Your task to perform on an android device: Go to Reddit.com Image 0: 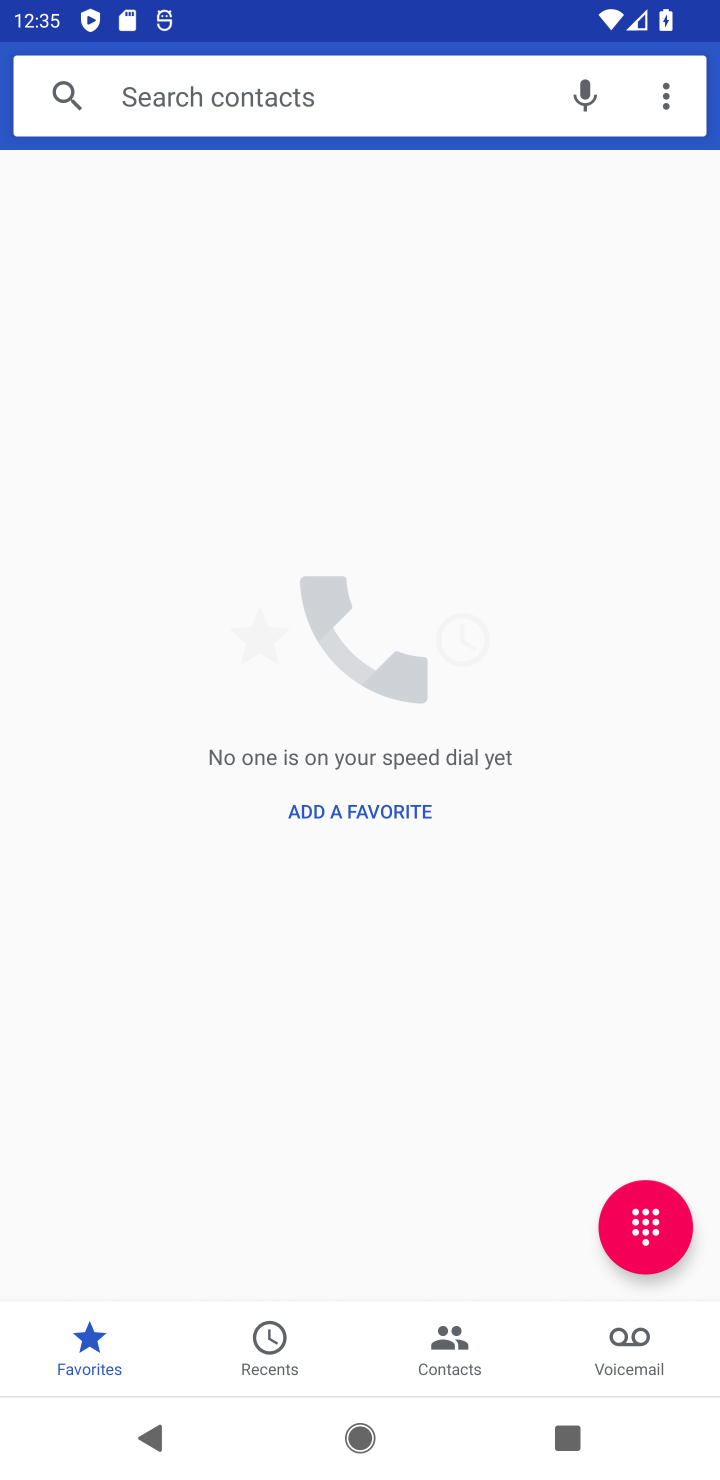
Step 0: press home button
Your task to perform on an android device: Go to Reddit.com Image 1: 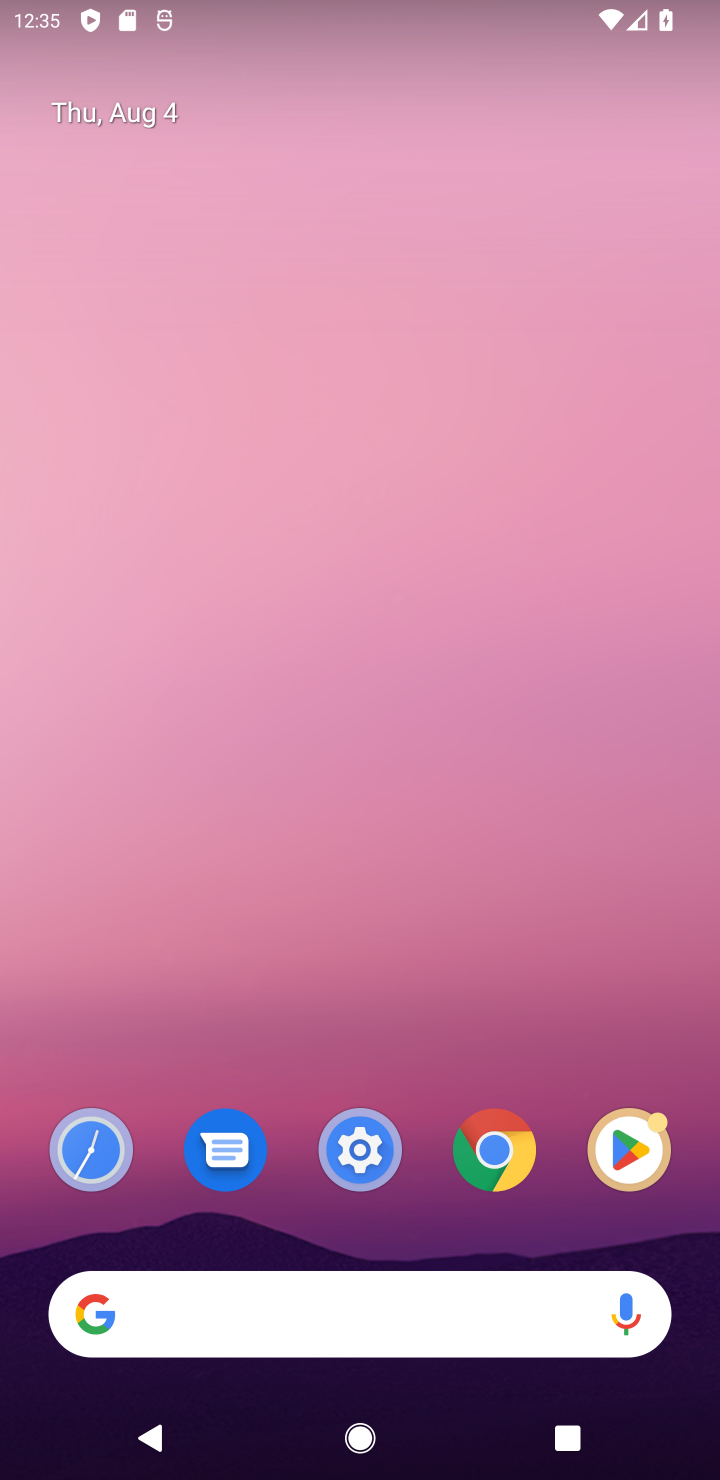
Step 1: click (502, 1150)
Your task to perform on an android device: Go to Reddit.com Image 2: 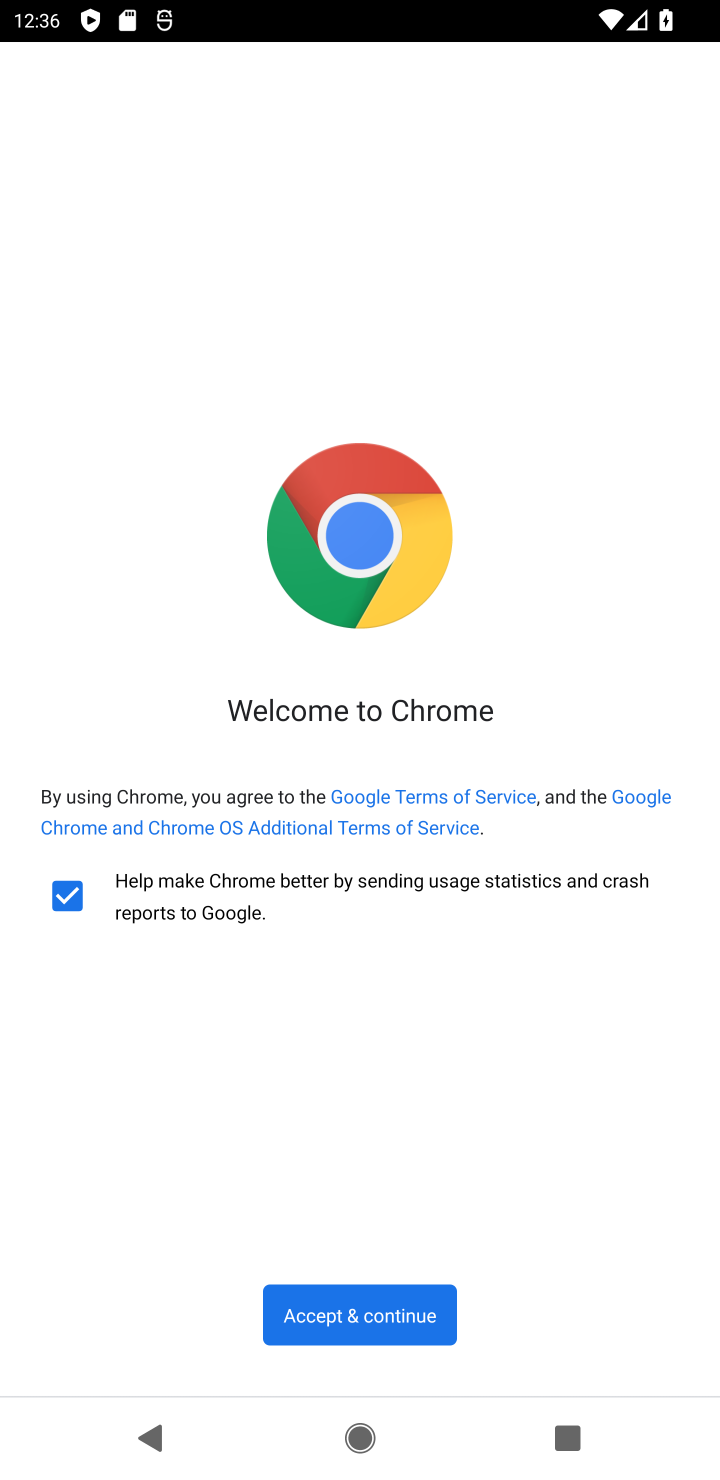
Step 2: click (398, 1277)
Your task to perform on an android device: Go to Reddit.com Image 3: 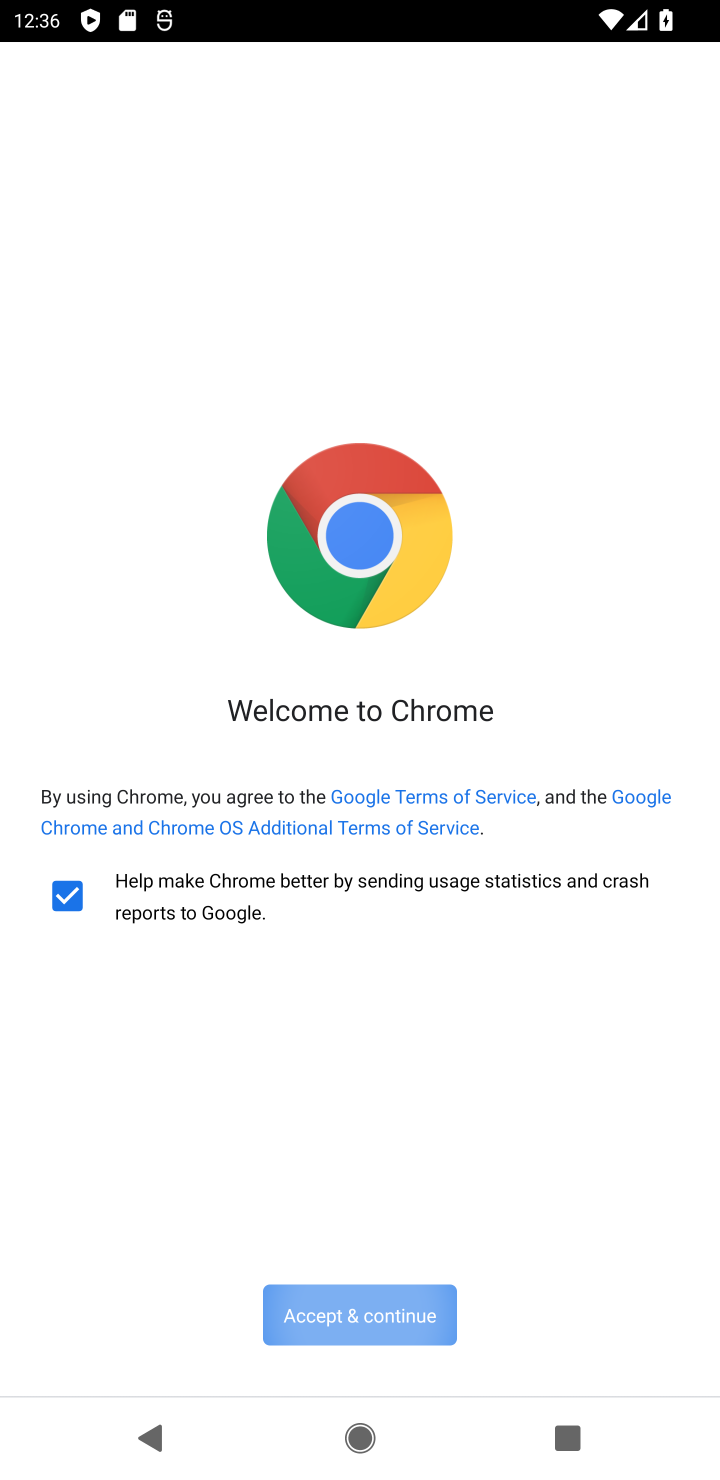
Step 3: click (398, 1297)
Your task to perform on an android device: Go to Reddit.com Image 4: 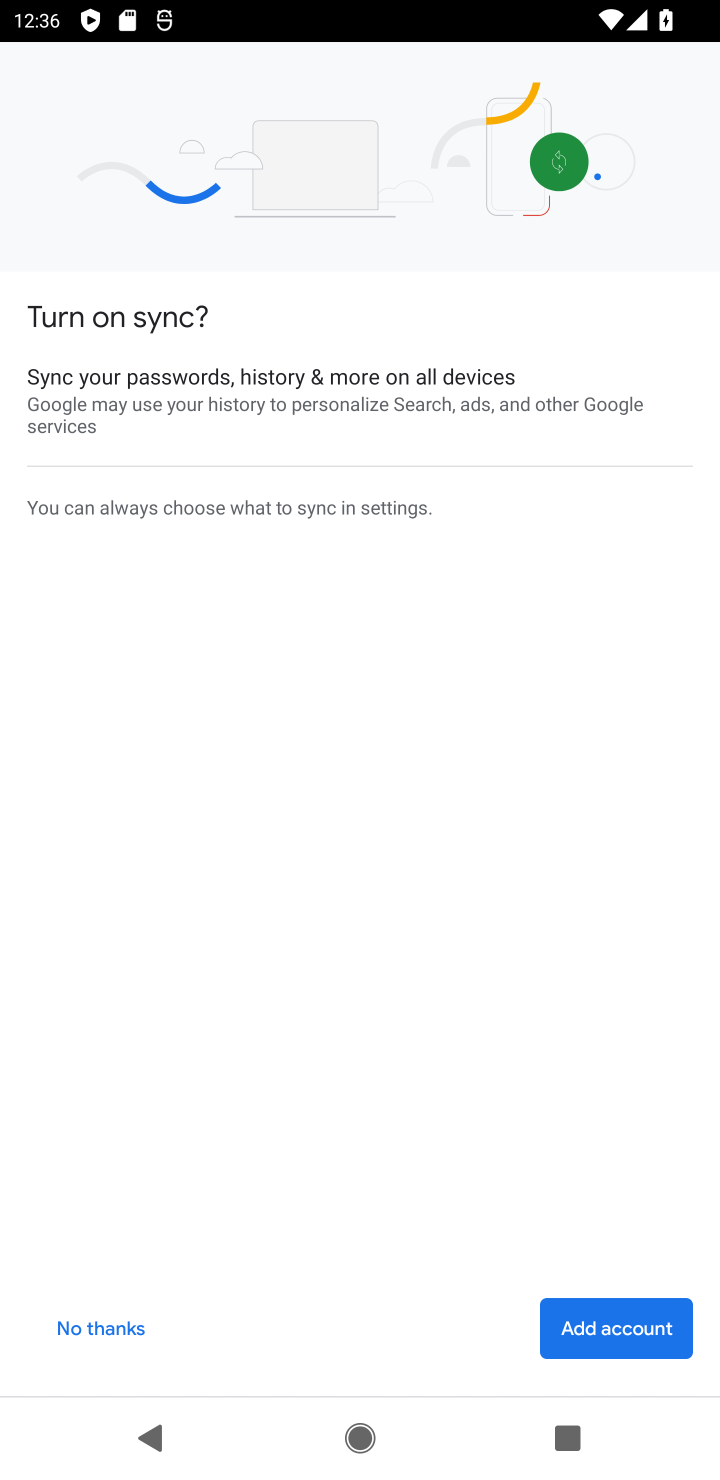
Step 4: click (119, 1318)
Your task to perform on an android device: Go to Reddit.com Image 5: 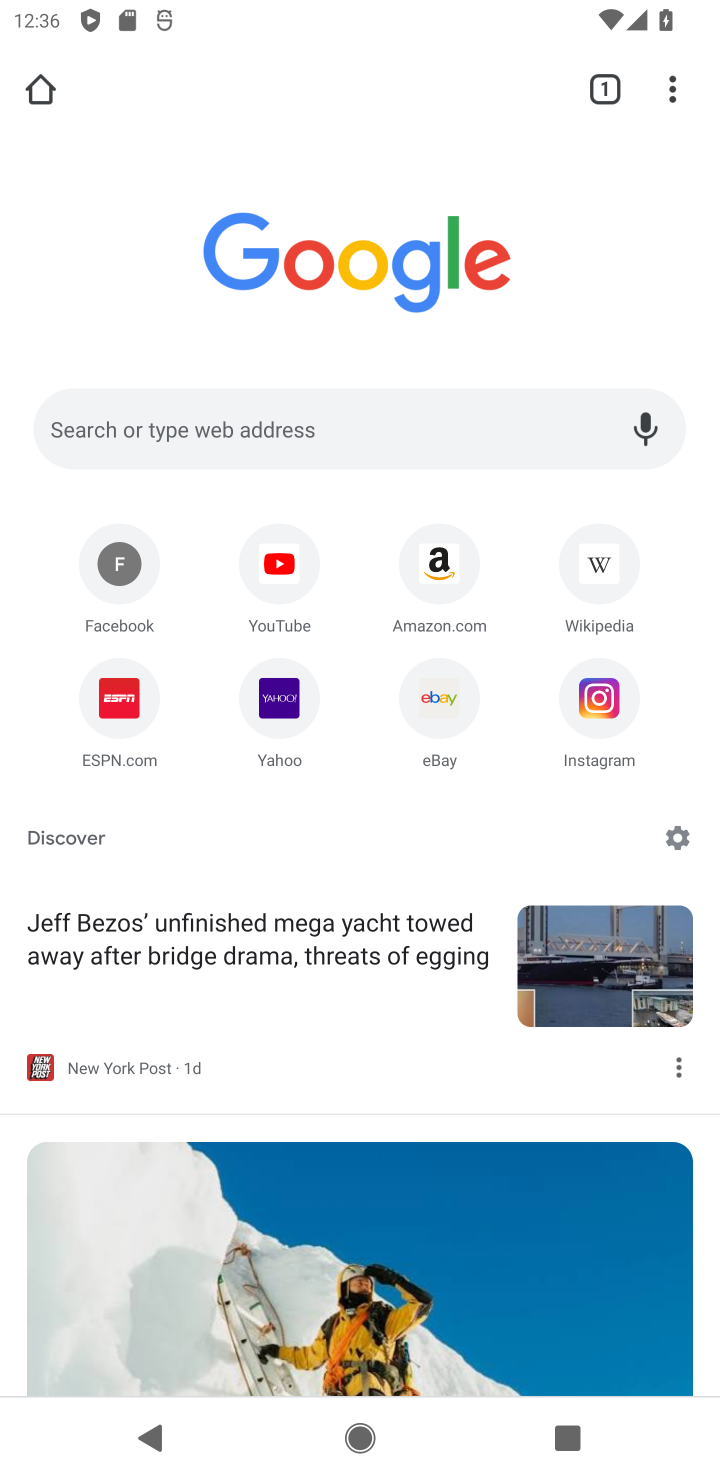
Step 5: click (389, 414)
Your task to perform on an android device: Go to Reddit.com Image 6: 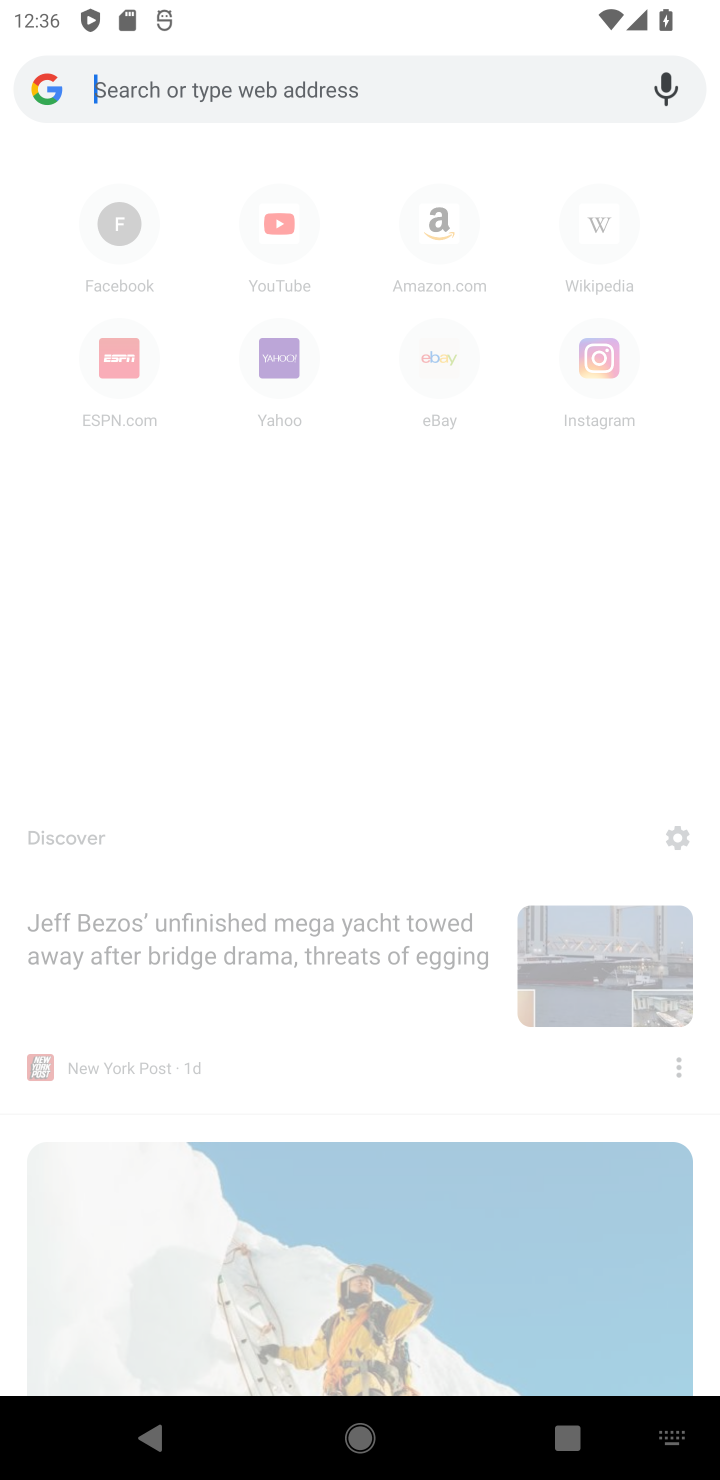
Step 6: type "Reddit.com"
Your task to perform on an android device: Go to Reddit.com Image 7: 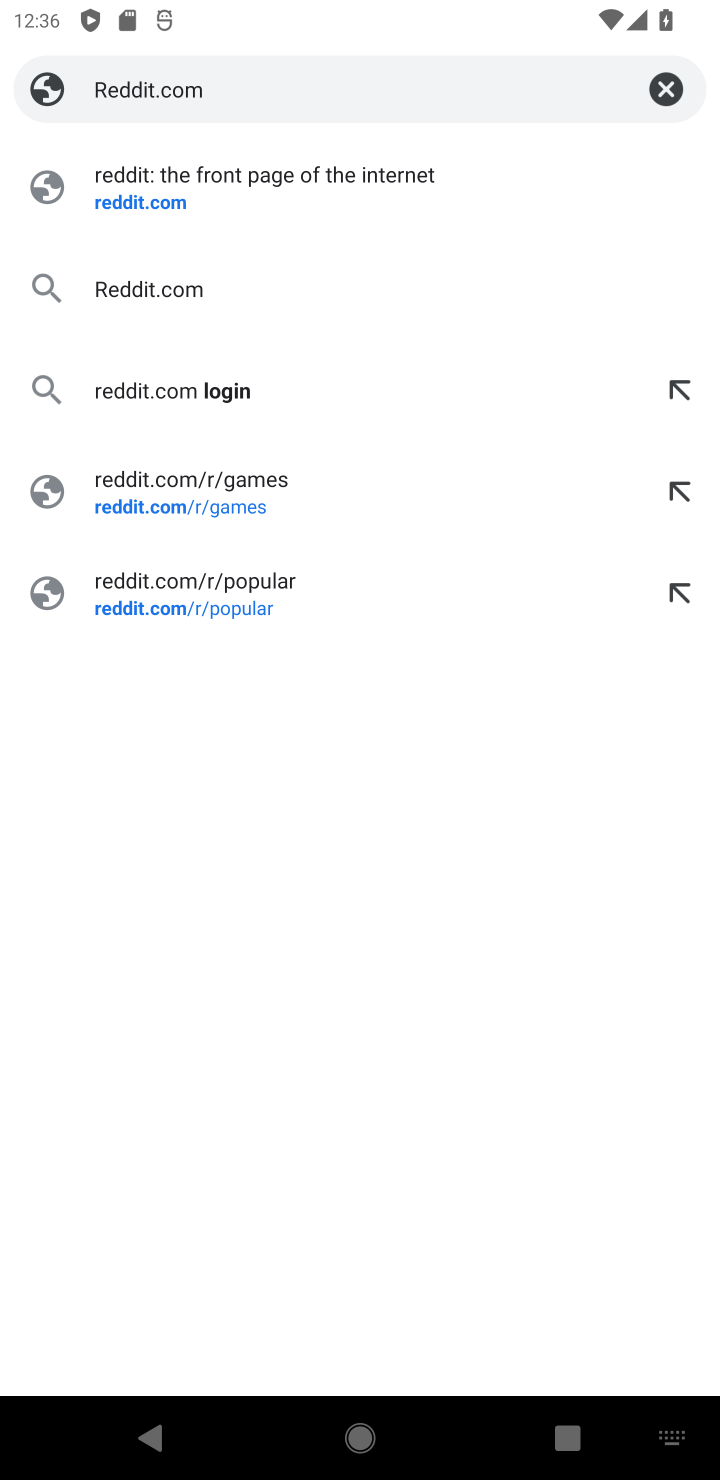
Step 7: click (215, 272)
Your task to perform on an android device: Go to Reddit.com Image 8: 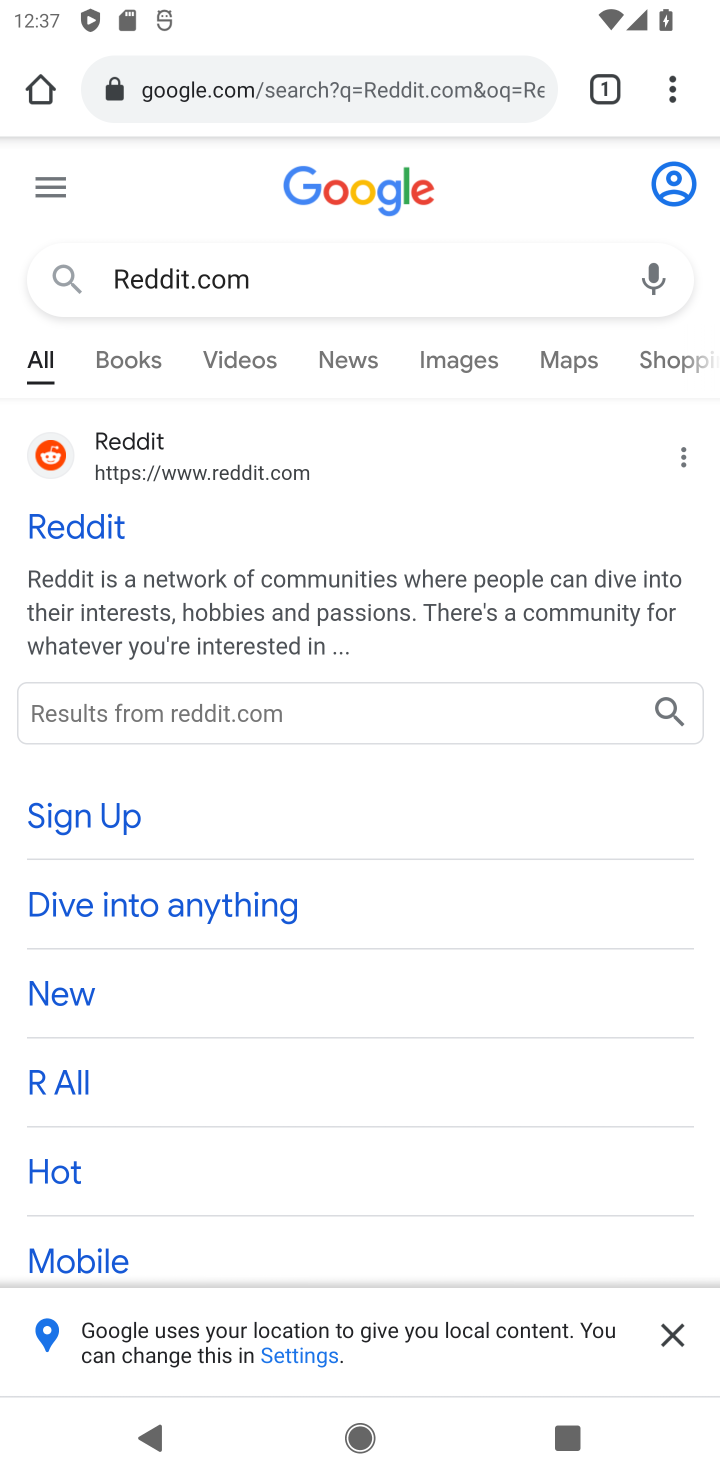
Step 8: click (72, 518)
Your task to perform on an android device: Go to Reddit.com Image 9: 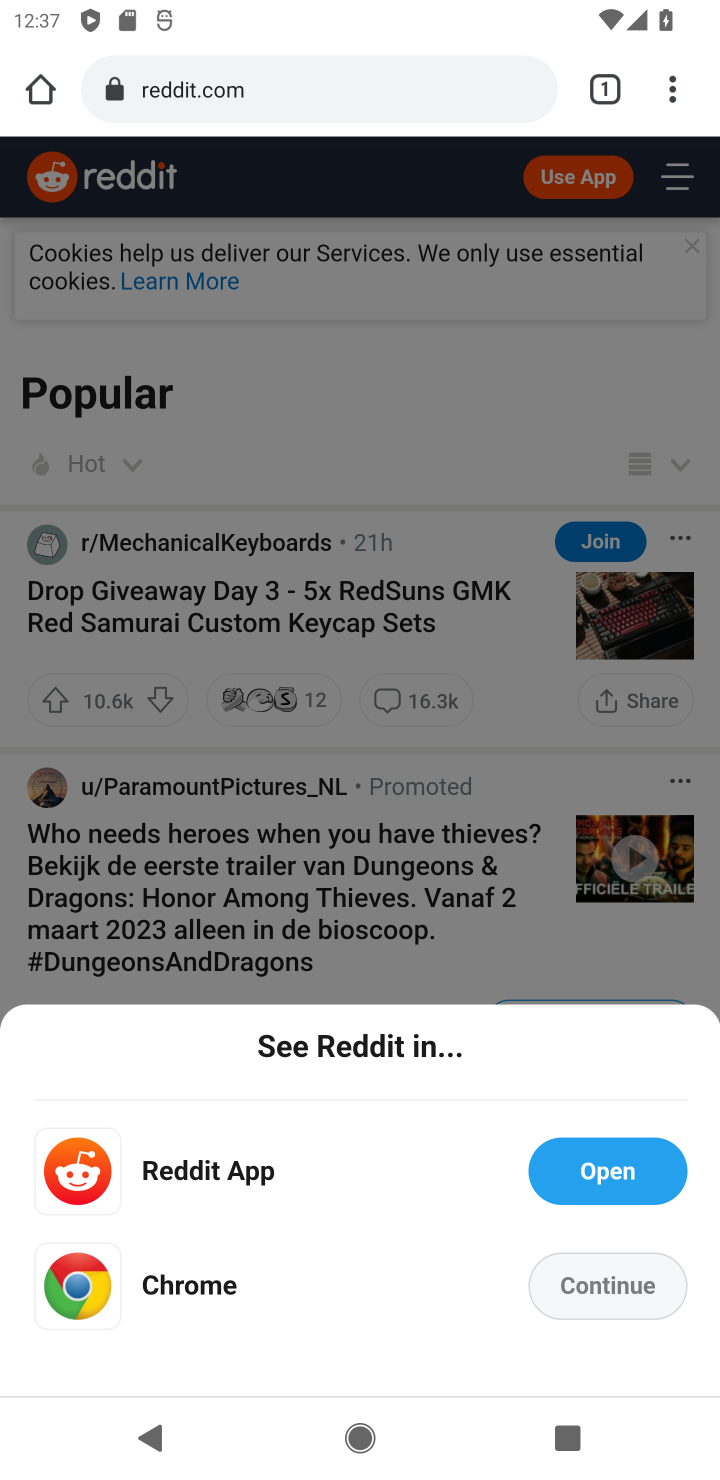
Step 9: task complete